Your task to perform on an android device: change notifications settings Image 0: 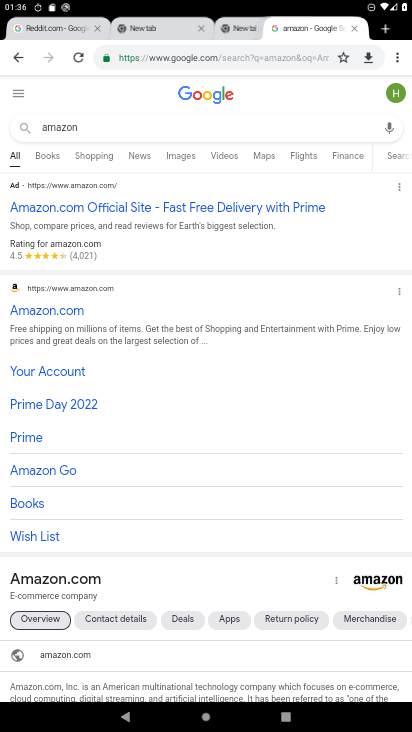
Step 0: press home button
Your task to perform on an android device: change notifications settings Image 1: 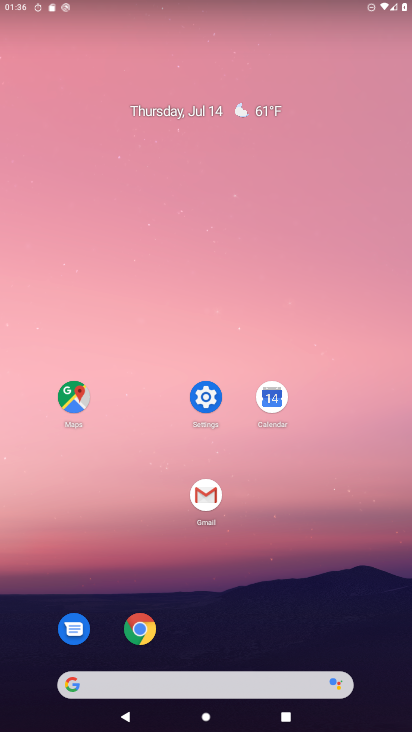
Step 1: click (204, 393)
Your task to perform on an android device: change notifications settings Image 2: 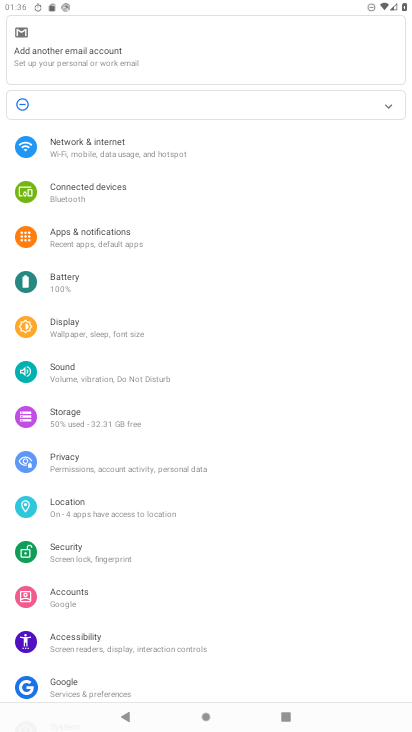
Step 2: click (105, 236)
Your task to perform on an android device: change notifications settings Image 3: 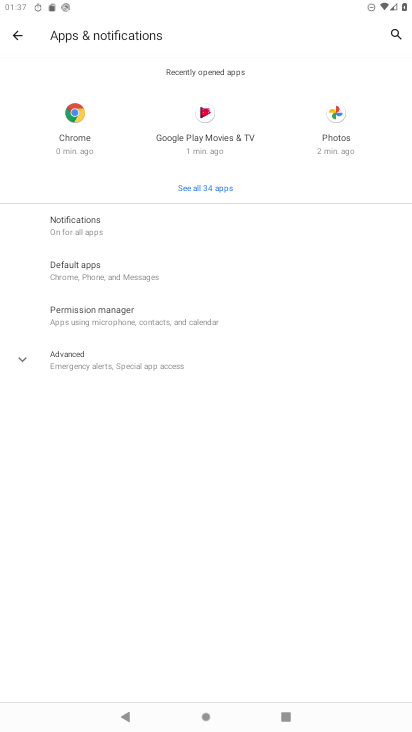
Step 3: click (74, 220)
Your task to perform on an android device: change notifications settings Image 4: 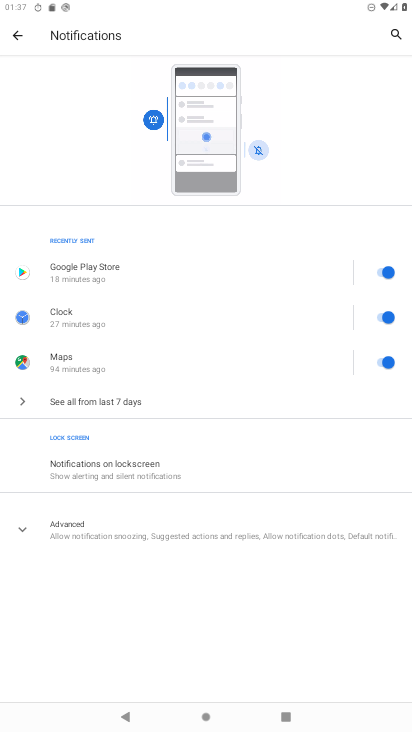
Step 4: click (391, 275)
Your task to perform on an android device: change notifications settings Image 5: 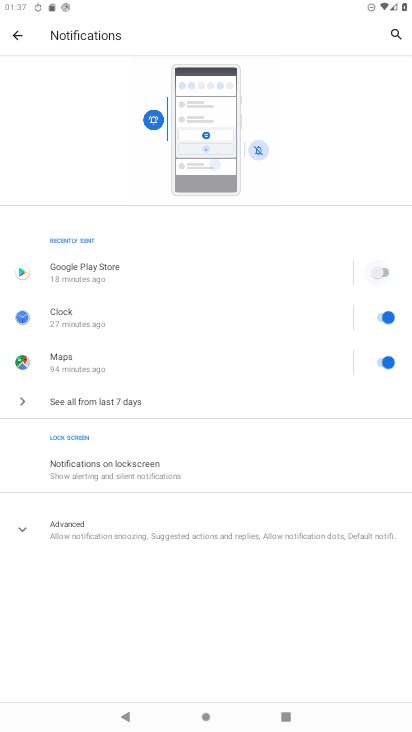
Step 5: click (378, 311)
Your task to perform on an android device: change notifications settings Image 6: 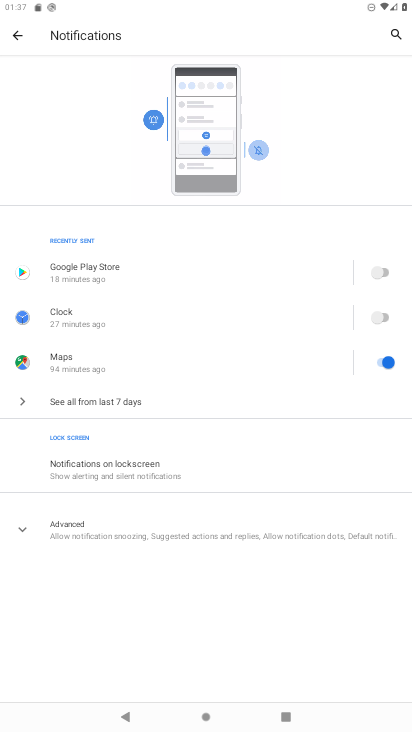
Step 6: click (383, 355)
Your task to perform on an android device: change notifications settings Image 7: 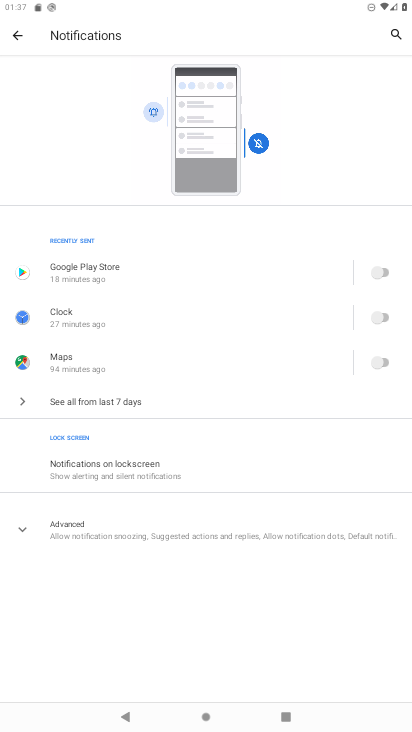
Step 7: task complete